Your task to perform on an android device: turn off wifi Image 0: 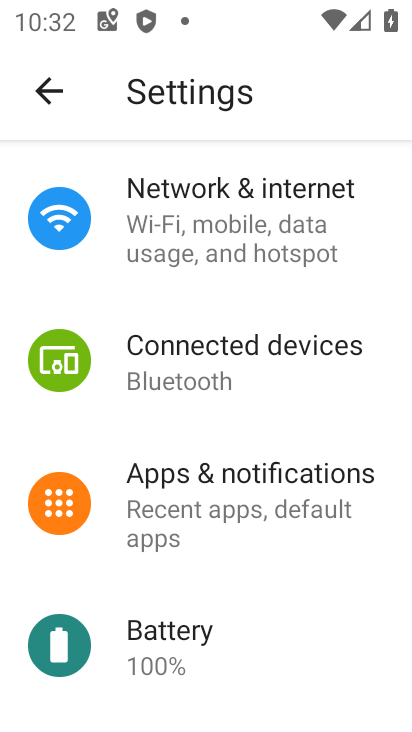
Step 0: click (201, 216)
Your task to perform on an android device: turn off wifi Image 1: 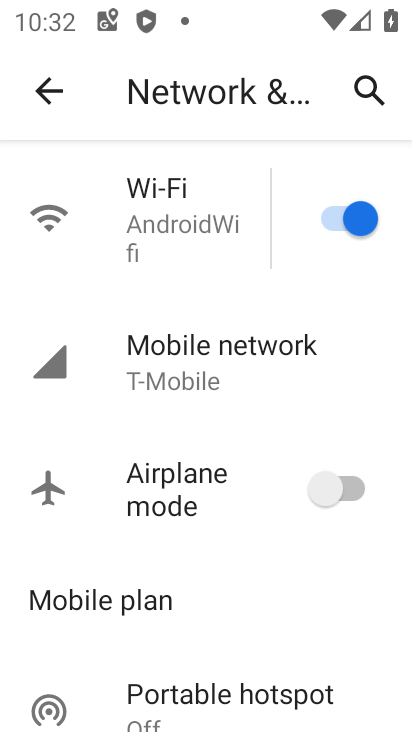
Step 1: click (327, 210)
Your task to perform on an android device: turn off wifi Image 2: 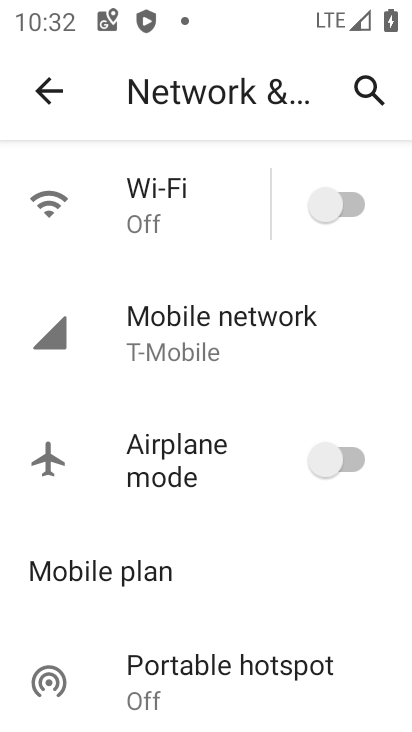
Step 2: task complete